Your task to perform on an android device: see sites visited before in the chrome app Image 0: 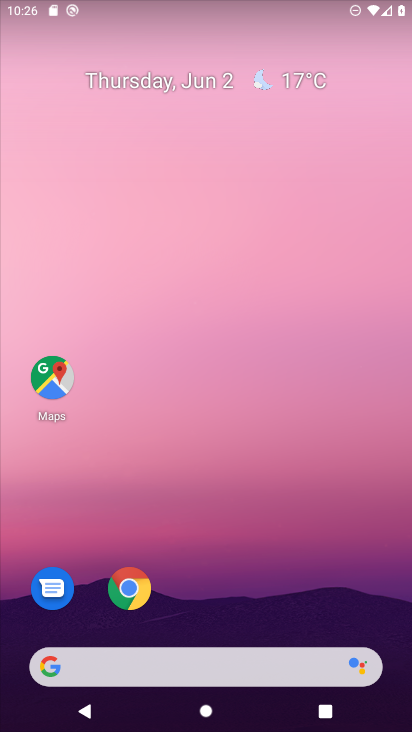
Step 0: drag from (249, 633) to (301, 227)
Your task to perform on an android device: see sites visited before in the chrome app Image 1: 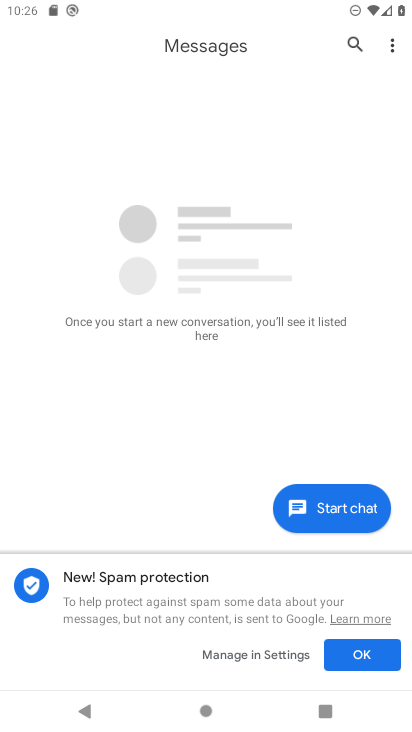
Step 1: press home button
Your task to perform on an android device: see sites visited before in the chrome app Image 2: 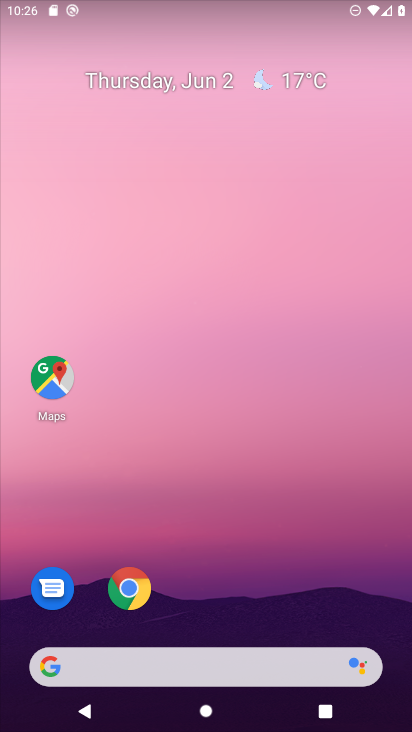
Step 2: drag from (253, 565) to (257, 350)
Your task to perform on an android device: see sites visited before in the chrome app Image 3: 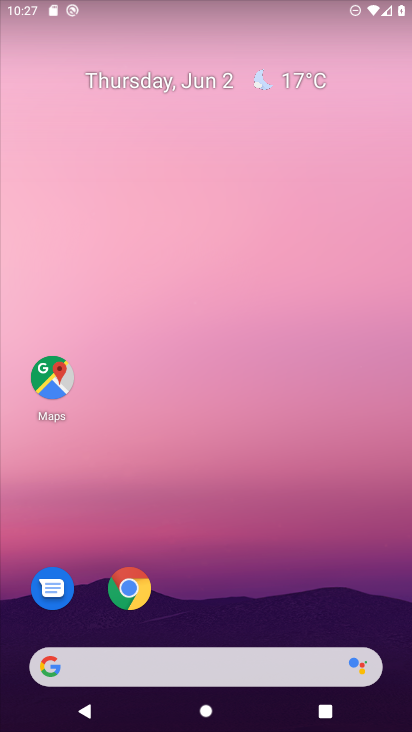
Step 3: drag from (253, 646) to (273, 269)
Your task to perform on an android device: see sites visited before in the chrome app Image 4: 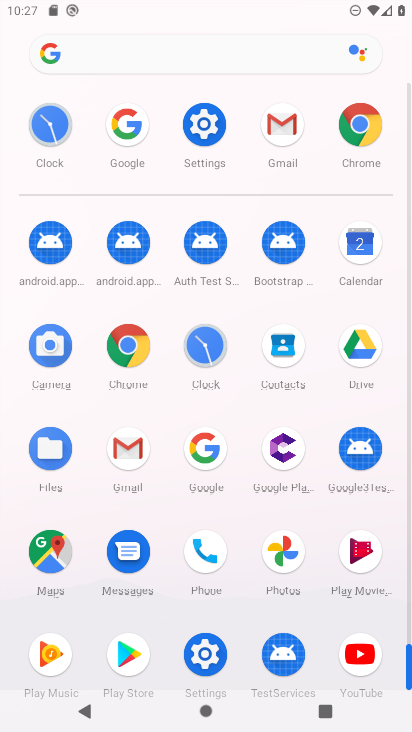
Step 4: click (371, 154)
Your task to perform on an android device: see sites visited before in the chrome app Image 5: 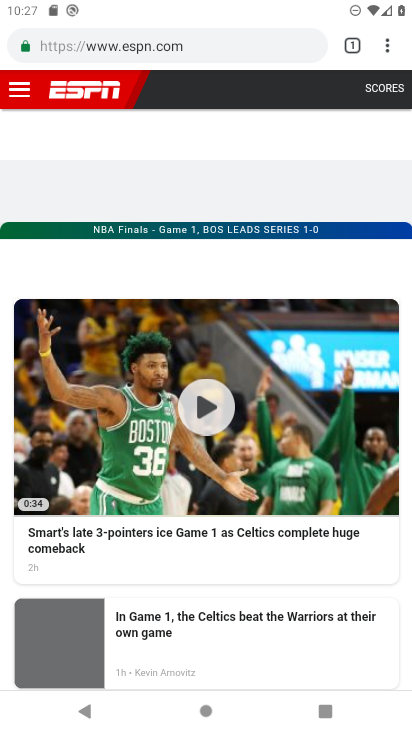
Step 5: click (399, 41)
Your task to perform on an android device: see sites visited before in the chrome app Image 6: 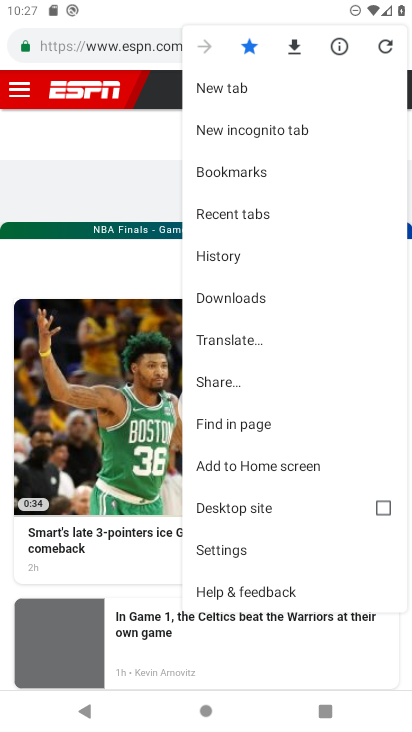
Step 6: click (271, 247)
Your task to perform on an android device: see sites visited before in the chrome app Image 7: 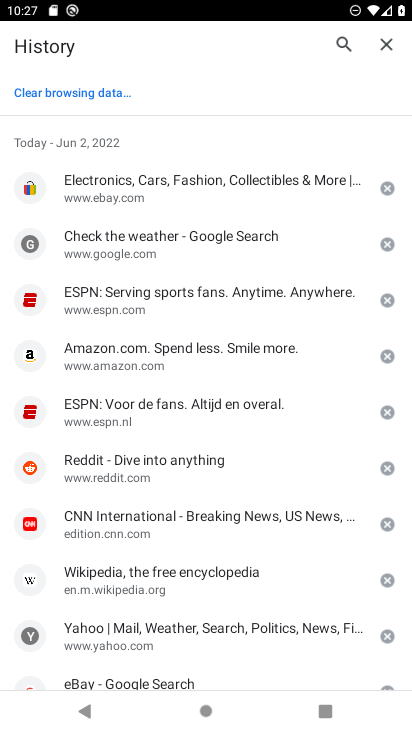
Step 7: task complete